Your task to perform on an android device: search for starred emails in the gmail app Image 0: 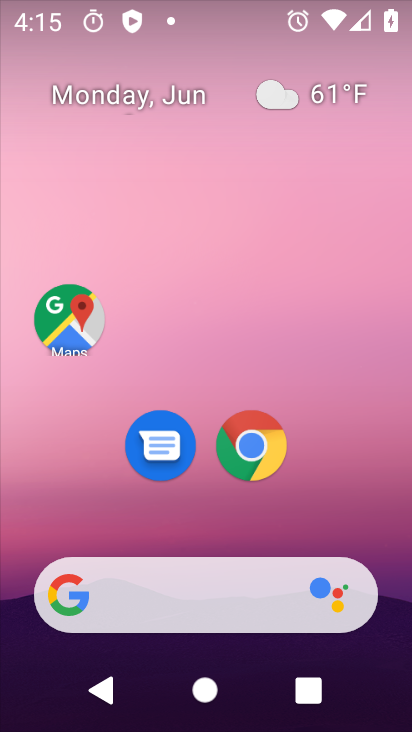
Step 0: drag from (217, 524) to (263, 2)
Your task to perform on an android device: search for starred emails in the gmail app Image 1: 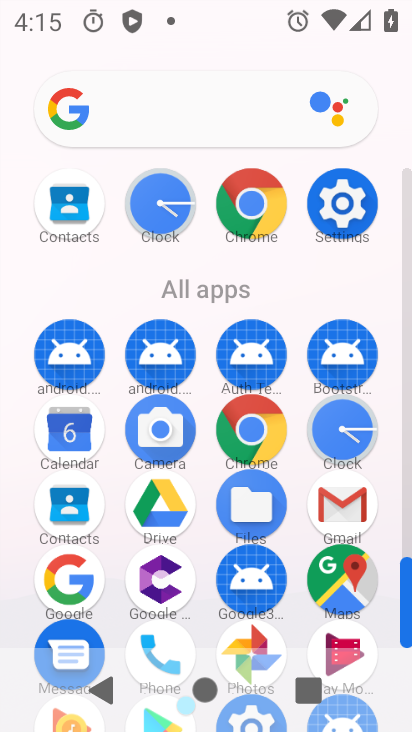
Step 1: click (343, 510)
Your task to perform on an android device: search for starred emails in the gmail app Image 2: 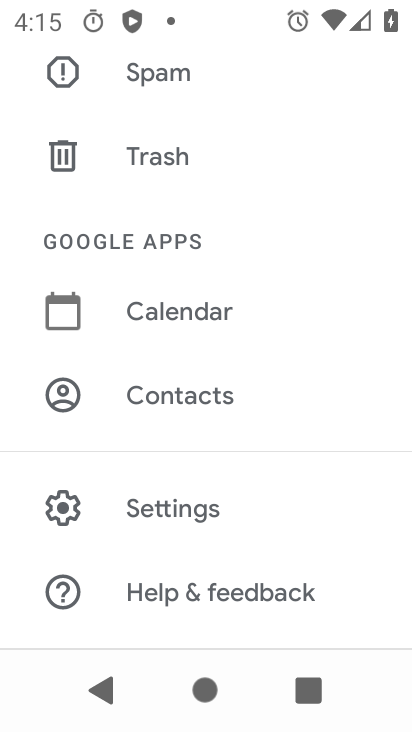
Step 2: drag from (232, 171) to (166, 683)
Your task to perform on an android device: search for starred emails in the gmail app Image 3: 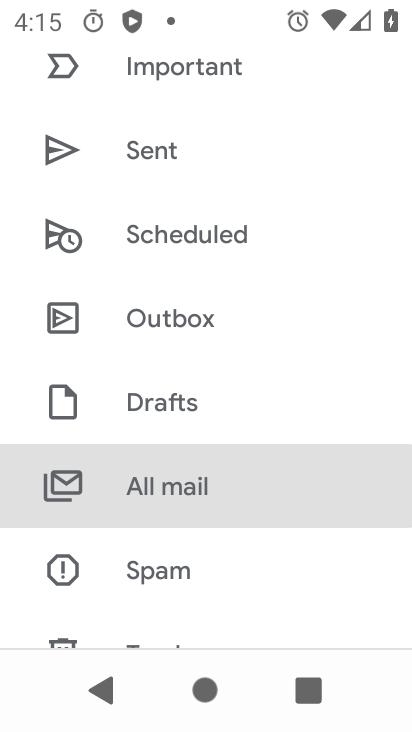
Step 3: drag from (245, 244) to (189, 725)
Your task to perform on an android device: search for starred emails in the gmail app Image 4: 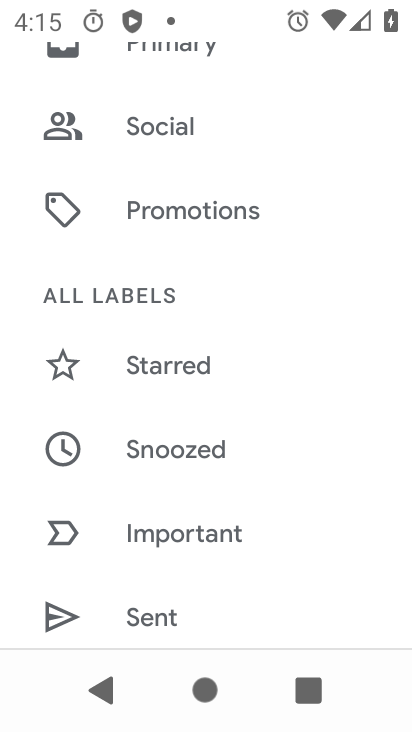
Step 4: drag from (233, 219) to (218, 303)
Your task to perform on an android device: search for starred emails in the gmail app Image 5: 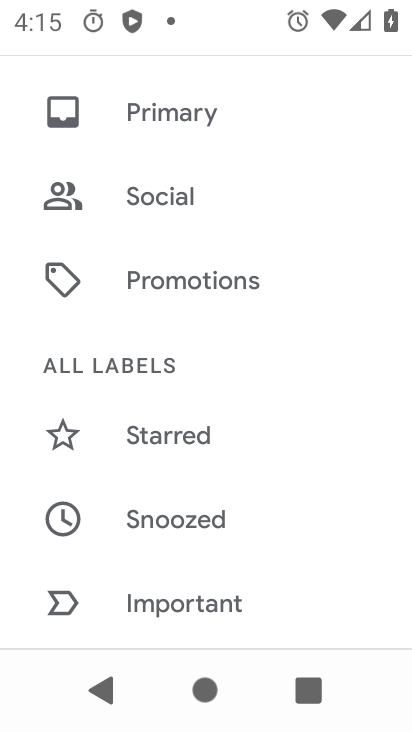
Step 5: click (156, 383)
Your task to perform on an android device: search for starred emails in the gmail app Image 6: 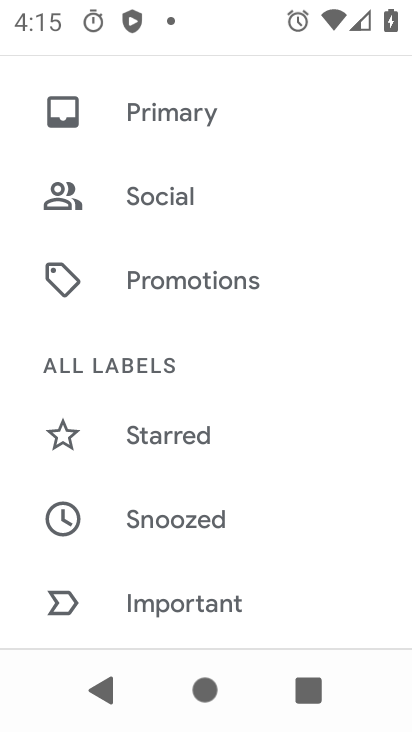
Step 6: click (157, 432)
Your task to perform on an android device: search for starred emails in the gmail app Image 7: 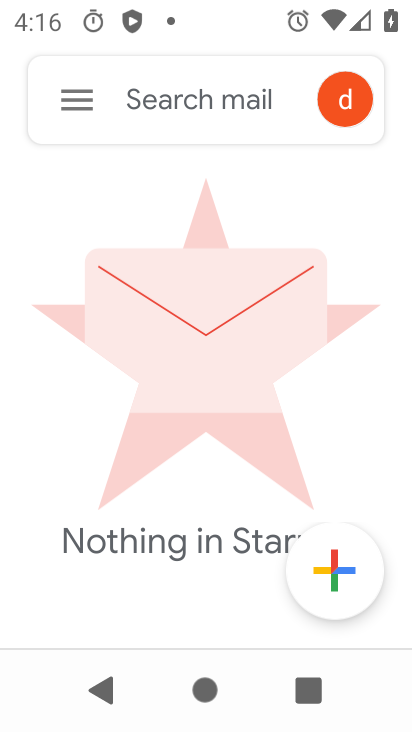
Step 7: task complete